Your task to perform on an android device: What's on Reddit this week Image 0: 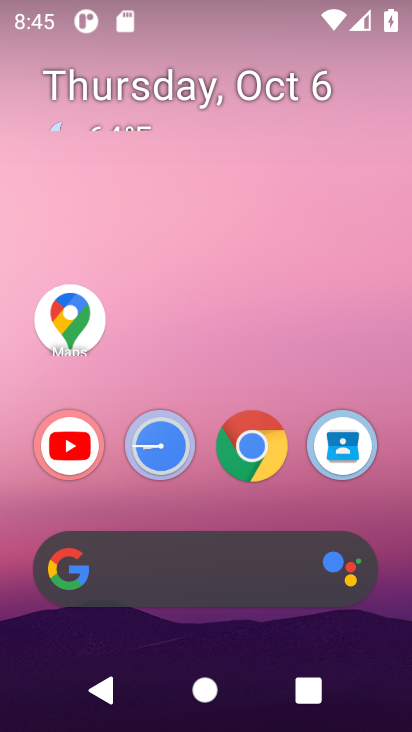
Step 0: click (209, 591)
Your task to perform on an android device: What's on Reddit this week Image 1: 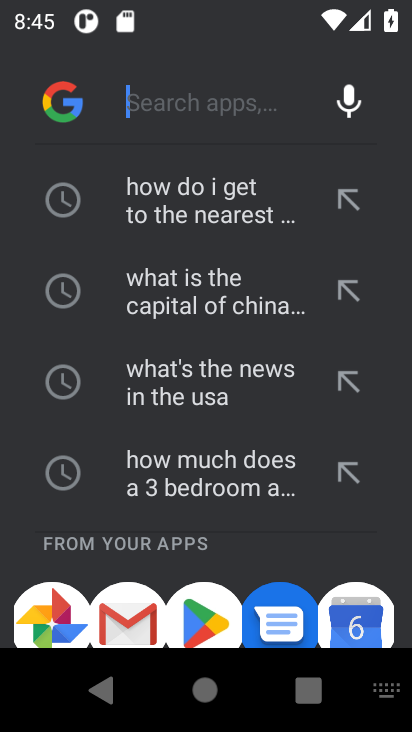
Step 1: type "What's on Reddit this week"
Your task to perform on an android device: What's on Reddit this week Image 2: 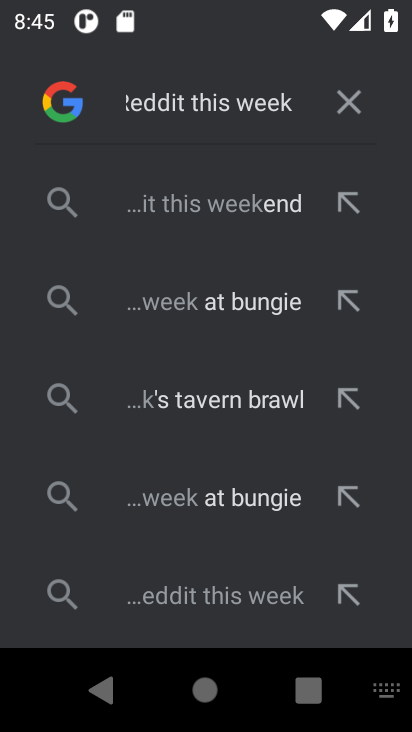
Step 2: click (210, 190)
Your task to perform on an android device: What's on Reddit this week Image 3: 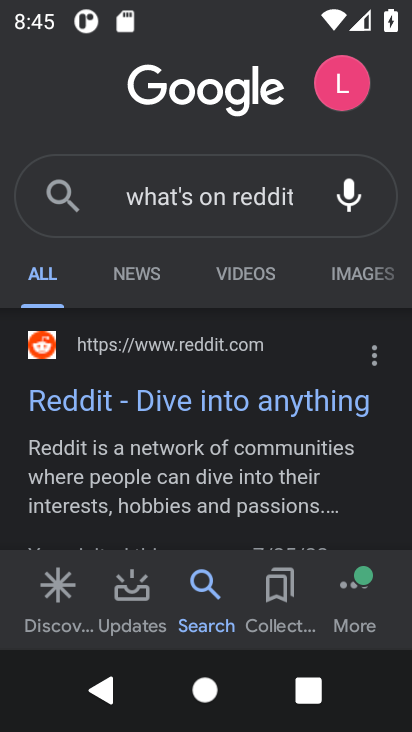
Step 3: click (189, 386)
Your task to perform on an android device: What's on Reddit this week Image 4: 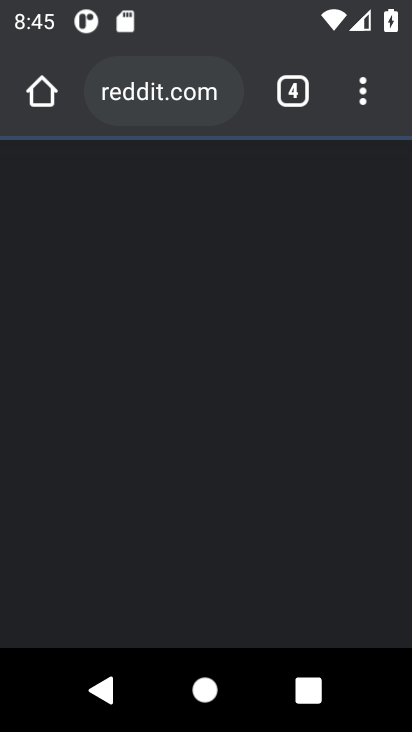
Step 4: task complete